Your task to perform on an android device: manage bookmarks in the chrome app Image 0: 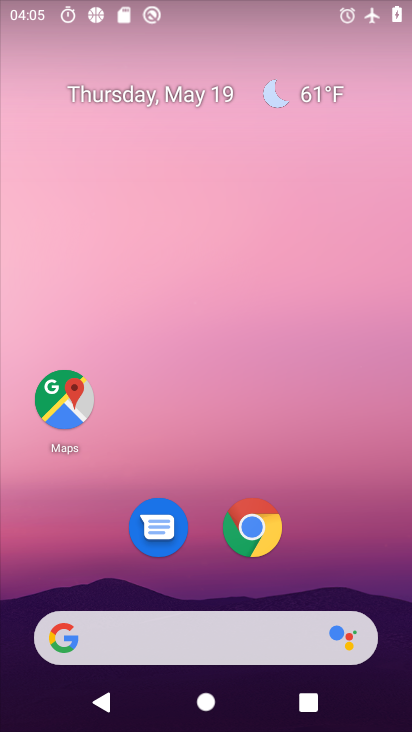
Step 0: click (252, 526)
Your task to perform on an android device: manage bookmarks in the chrome app Image 1: 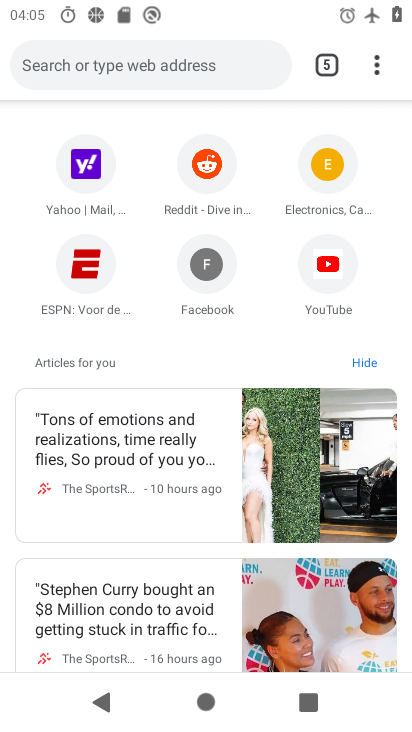
Step 1: drag from (377, 61) to (193, 235)
Your task to perform on an android device: manage bookmarks in the chrome app Image 2: 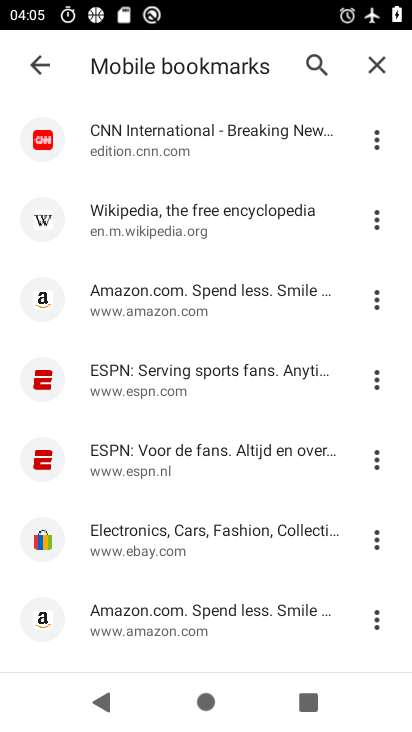
Step 2: click (369, 149)
Your task to perform on an android device: manage bookmarks in the chrome app Image 3: 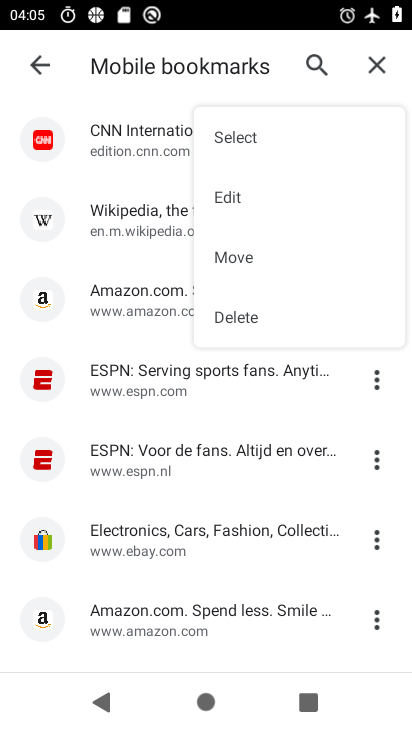
Step 3: click (246, 313)
Your task to perform on an android device: manage bookmarks in the chrome app Image 4: 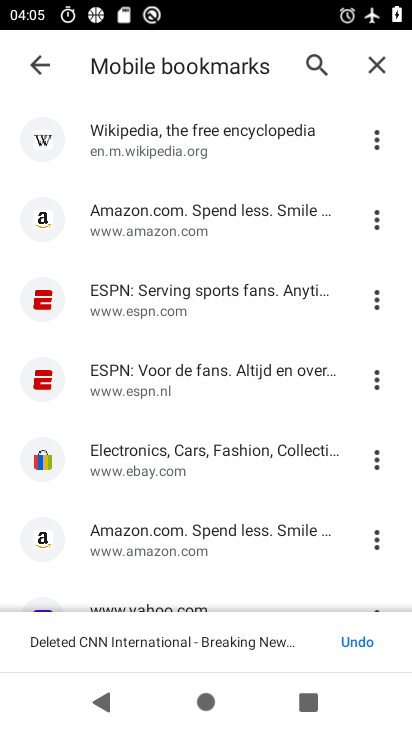
Step 4: task complete